Your task to perform on an android device: toggle wifi Image 0: 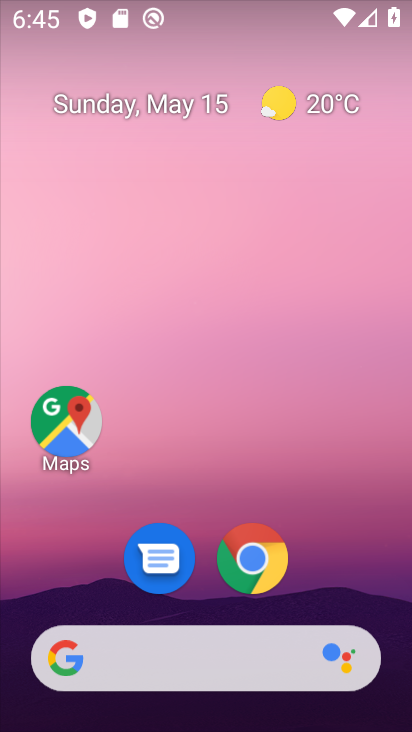
Step 0: drag from (252, 459) to (170, 131)
Your task to perform on an android device: toggle wifi Image 1: 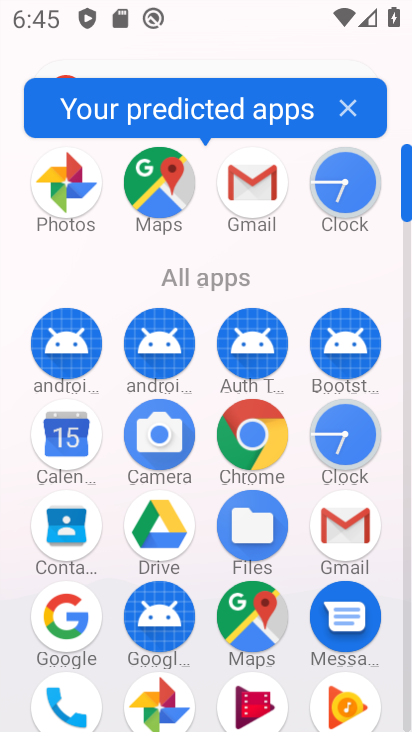
Step 1: drag from (202, 505) to (151, 205)
Your task to perform on an android device: toggle wifi Image 2: 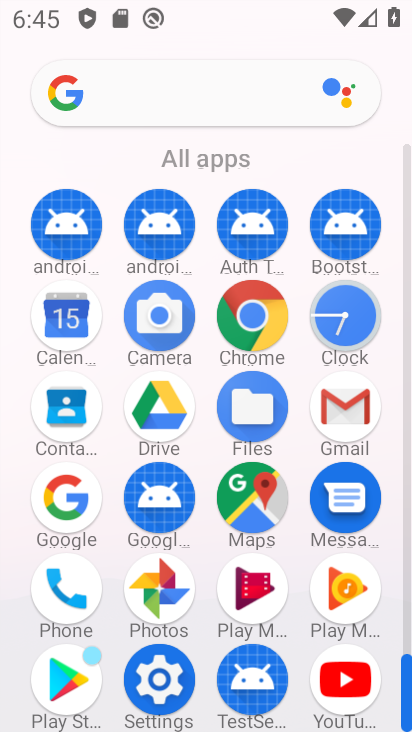
Step 2: click (158, 676)
Your task to perform on an android device: toggle wifi Image 3: 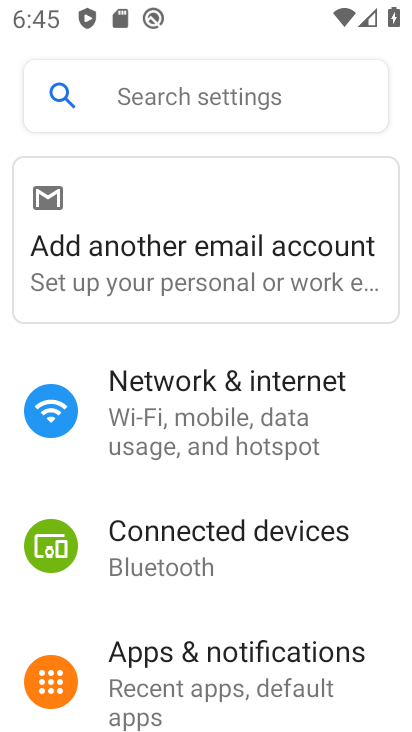
Step 3: click (189, 375)
Your task to perform on an android device: toggle wifi Image 4: 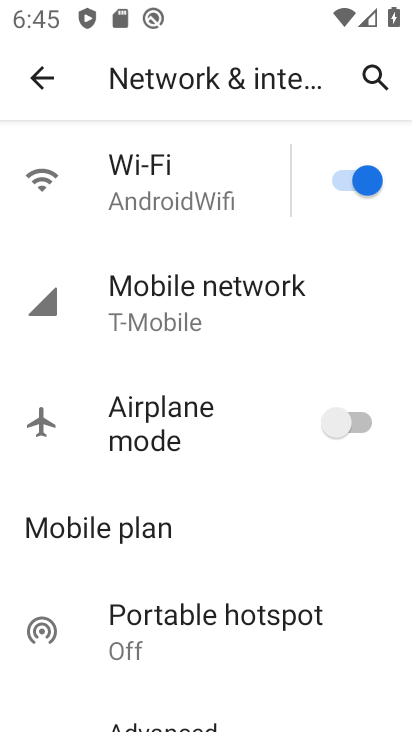
Step 4: click (349, 182)
Your task to perform on an android device: toggle wifi Image 5: 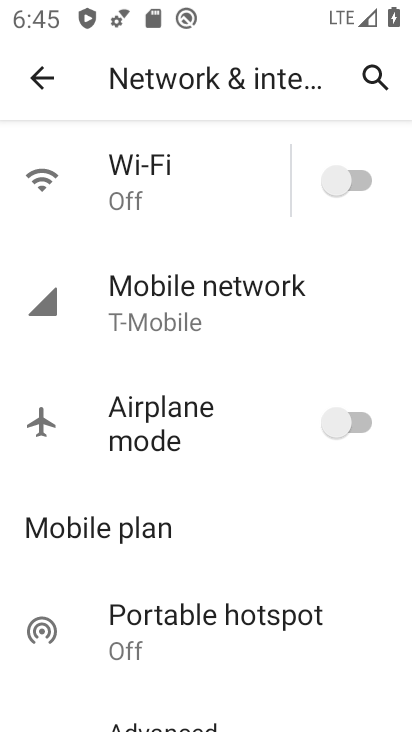
Step 5: task complete